Your task to perform on an android device: Turn off the flashlight Image 0: 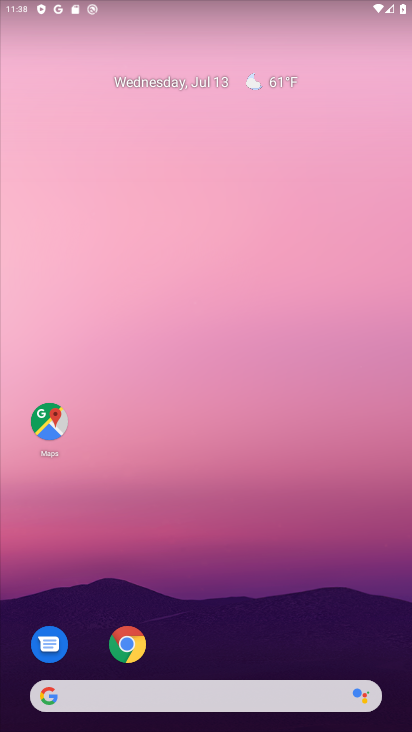
Step 0: drag from (336, 9) to (288, 497)
Your task to perform on an android device: Turn off the flashlight Image 1: 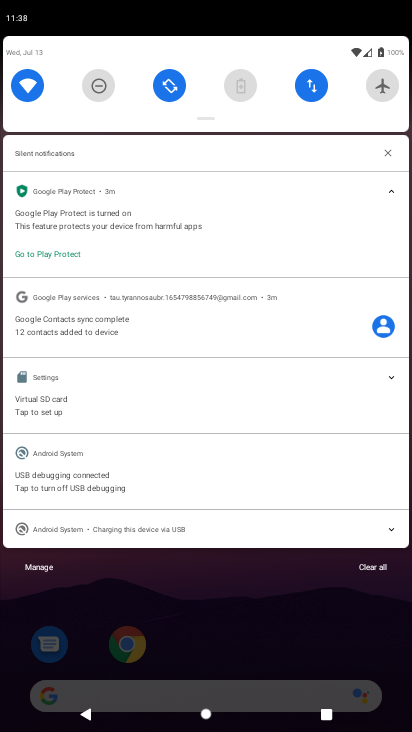
Step 1: drag from (254, 118) to (153, 606)
Your task to perform on an android device: Turn off the flashlight Image 2: 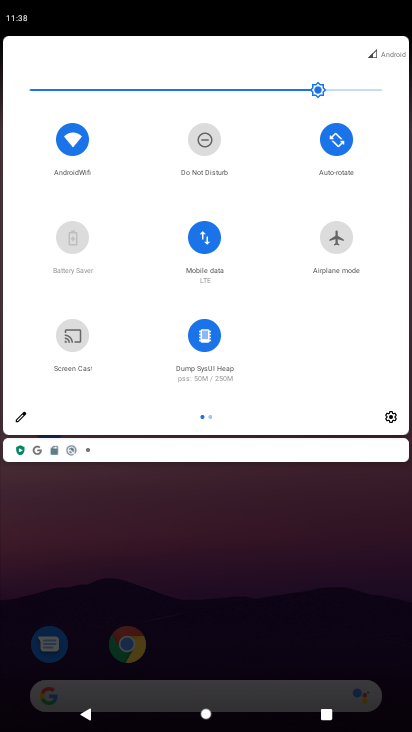
Step 2: drag from (342, 318) to (2, 250)
Your task to perform on an android device: Turn off the flashlight Image 3: 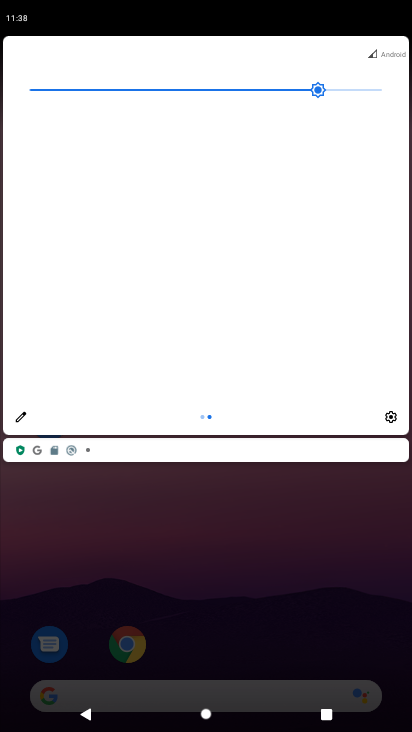
Step 3: click (13, 414)
Your task to perform on an android device: Turn off the flashlight Image 4: 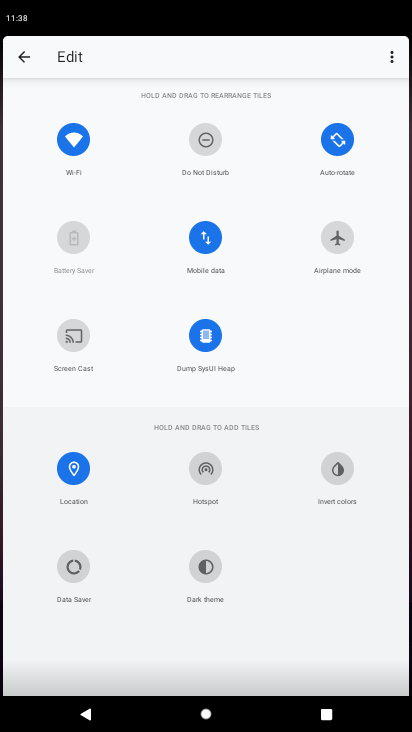
Step 4: task complete